Your task to perform on an android device: Is it going to rain this weekend? Image 0: 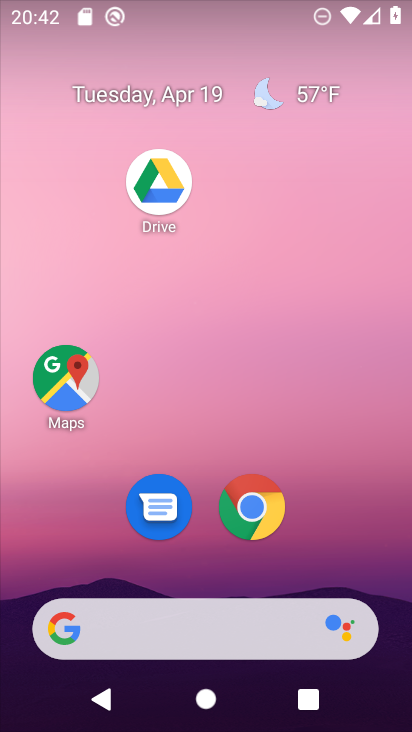
Step 0: click (301, 89)
Your task to perform on an android device: Is it going to rain this weekend? Image 1: 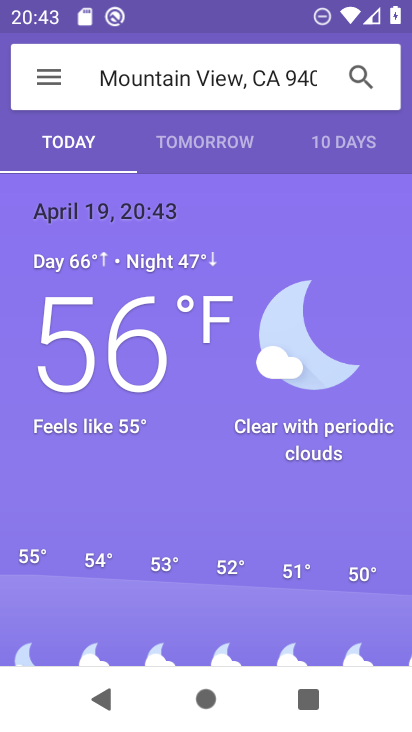
Step 1: click (362, 147)
Your task to perform on an android device: Is it going to rain this weekend? Image 2: 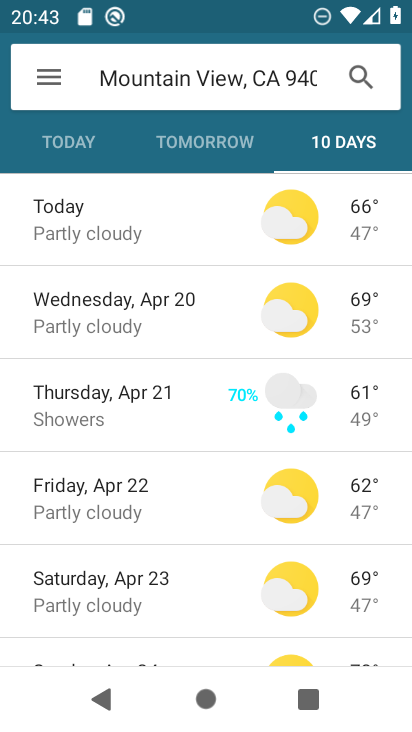
Step 2: click (162, 584)
Your task to perform on an android device: Is it going to rain this weekend? Image 3: 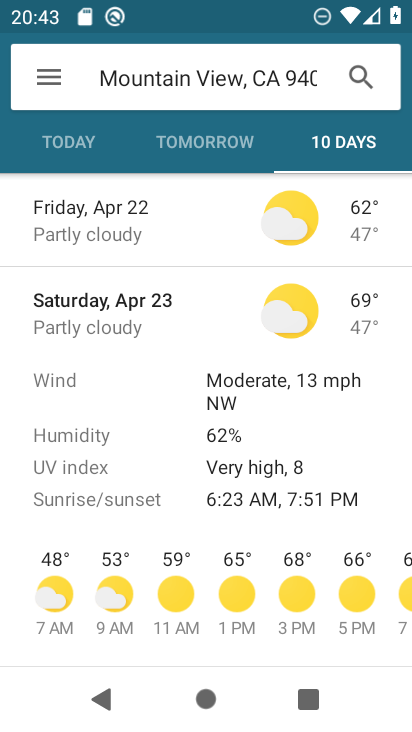
Step 3: task complete